Your task to perform on an android device: Search for the best selling books on Target. Image 0: 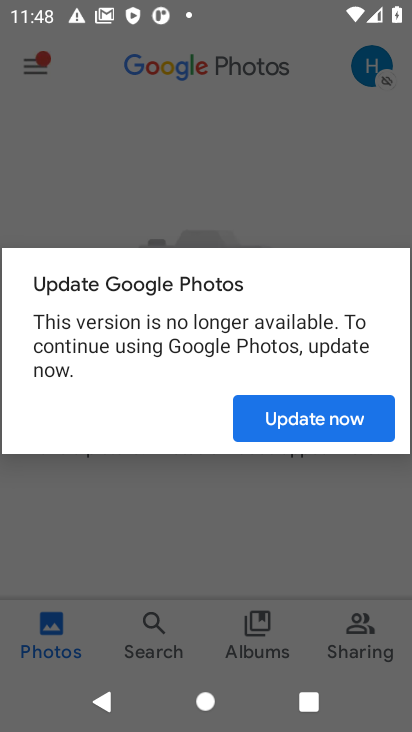
Step 0: press home button
Your task to perform on an android device: Search for the best selling books on Target. Image 1: 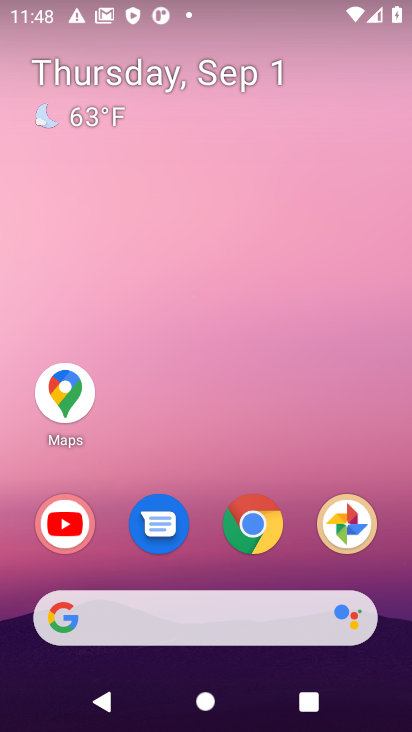
Step 1: click (257, 520)
Your task to perform on an android device: Search for the best selling books on Target. Image 2: 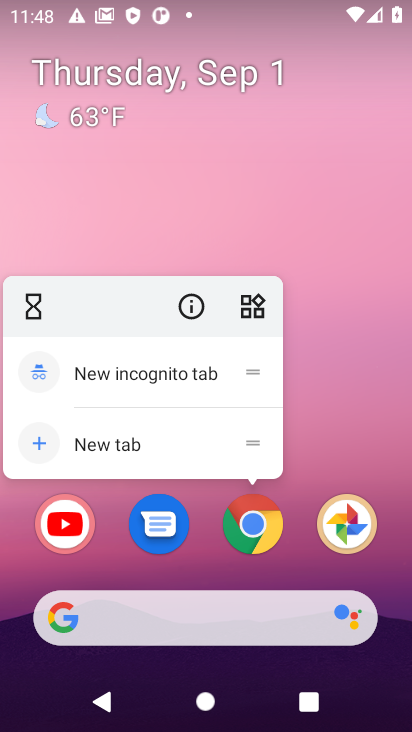
Step 2: click (317, 436)
Your task to perform on an android device: Search for the best selling books on Target. Image 3: 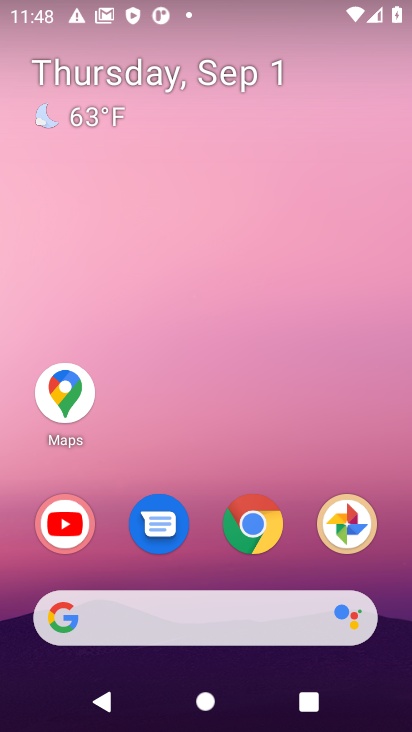
Step 3: click (254, 523)
Your task to perform on an android device: Search for the best selling books on Target. Image 4: 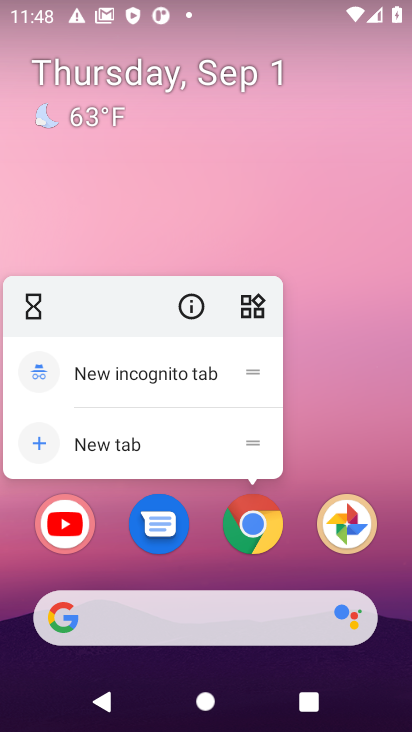
Step 4: click (254, 523)
Your task to perform on an android device: Search for the best selling books on Target. Image 5: 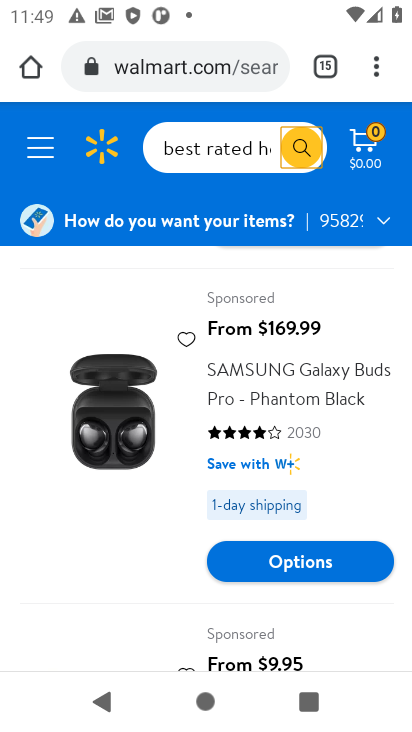
Step 5: click (332, 66)
Your task to perform on an android device: Search for the best selling books on Target. Image 6: 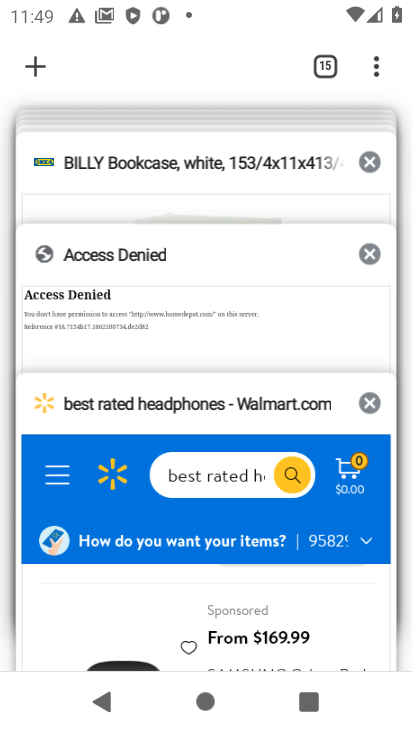
Step 6: drag from (176, 575) to (158, 514)
Your task to perform on an android device: Search for the best selling books on Target. Image 7: 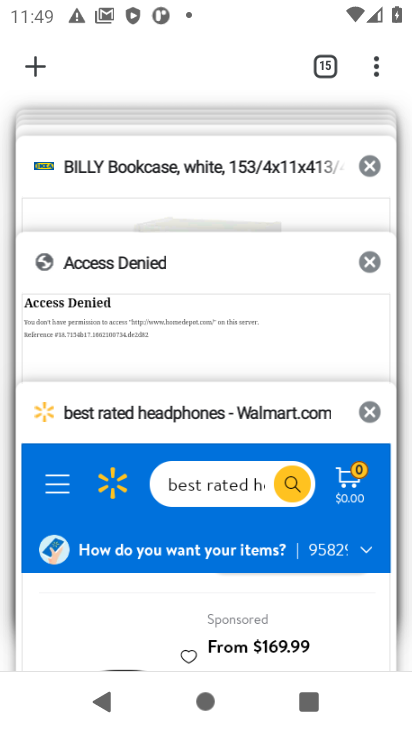
Step 7: drag from (183, 235) to (179, 591)
Your task to perform on an android device: Search for the best selling books on Target. Image 8: 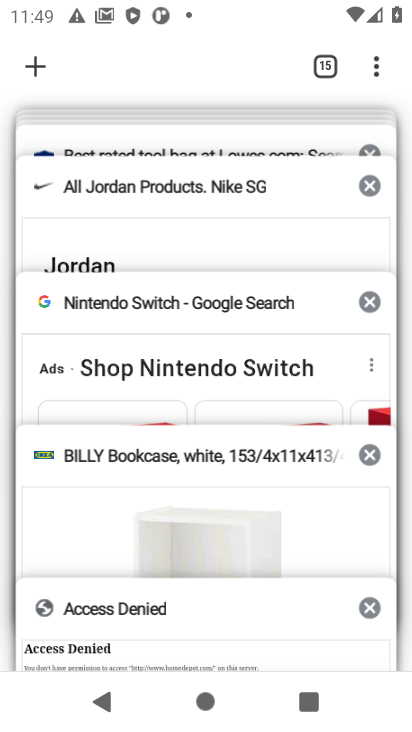
Step 8: drag from (188, 231) to (195, 594)
Your task to perform on an android device: Search for the best selling books on Target. Image 9: 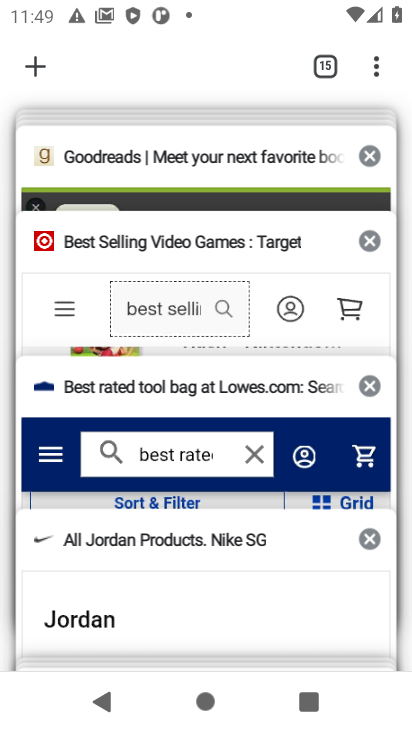
Step 9: click (176, 259)
Your task to perform on an android device: Search for the best selling books on Target. Image 10: 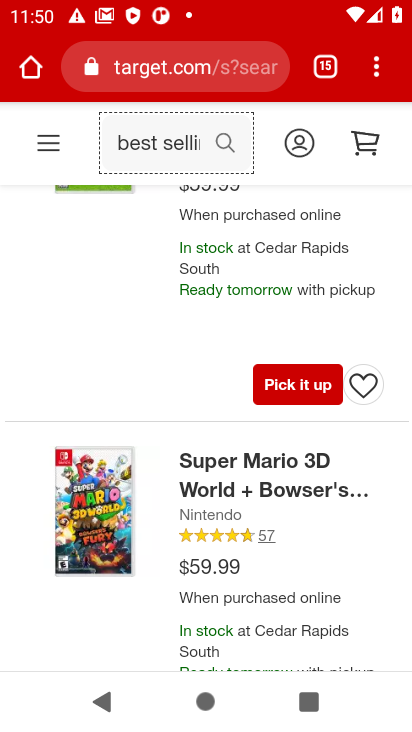
Step 10: click (184, 151)
Your task to perform on an android device: Search for the best selling books on Target. Image 11: 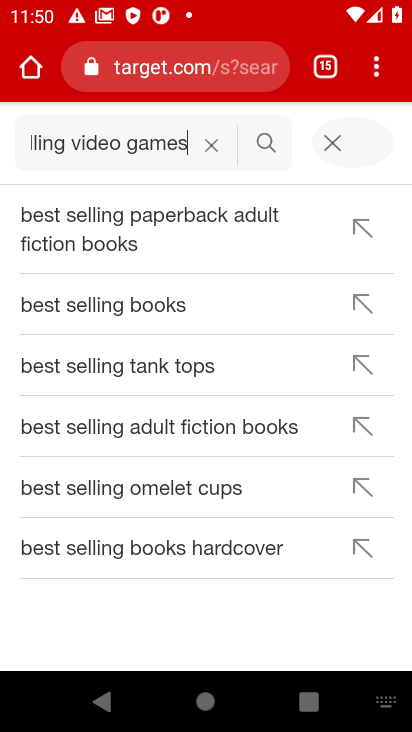
Step 11: click (137, 311)
Your task to perform on an android device: Search for the best selling books on Target. Image 12: 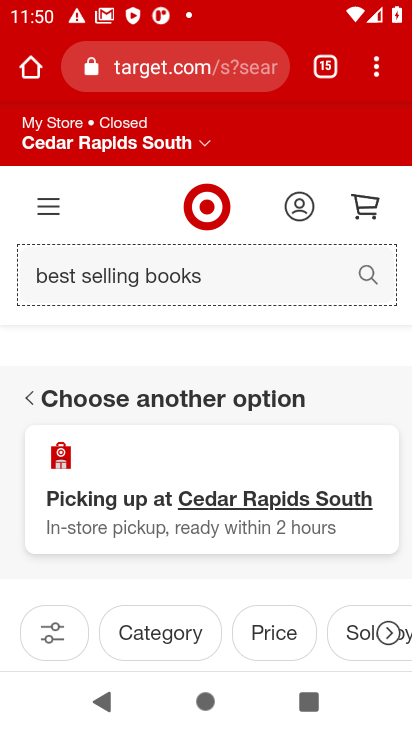
Step 12: task complete